Your task to perform on an android device: change timer sound Image 0: 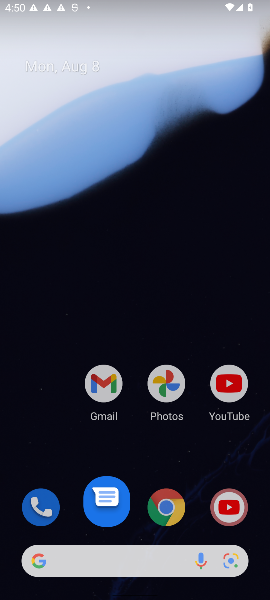
Step 0: press home button
Your task to perform on an android device: change timer sound Image 1: 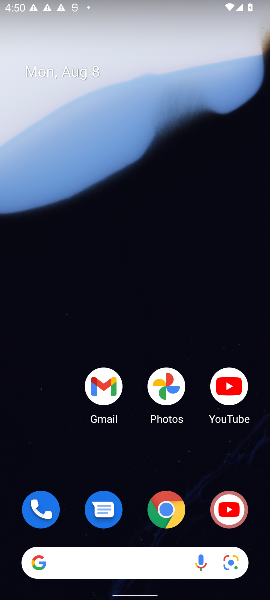
Step 1: drag from (131, 490) to (158, 68)
Your task to perform on an android device: change timer sound Image 2: 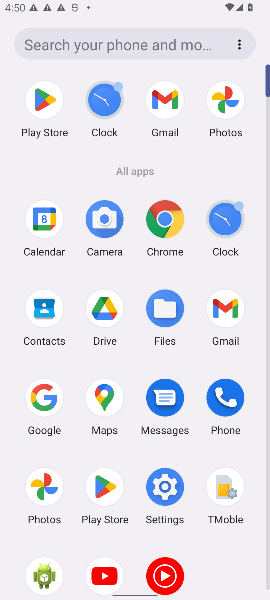
Step 2: click (111, 99)
Your task to perform on an android device: change timer sound Image 3: 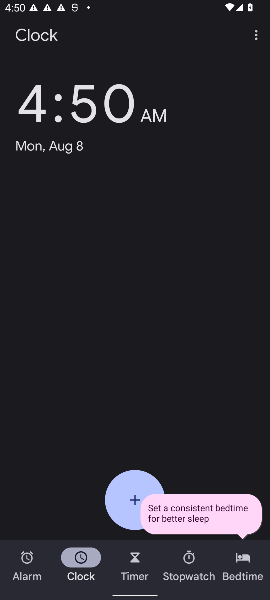
Step 3: click (257, 32)
Your task to perform on an android device: change timer sound Image 4: 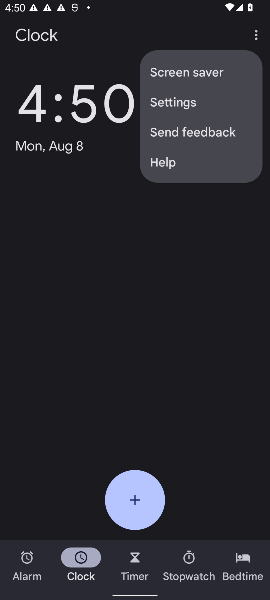
Step 4: click (180, 103)
Your task to perform on an android device: change timer sound Image 5: 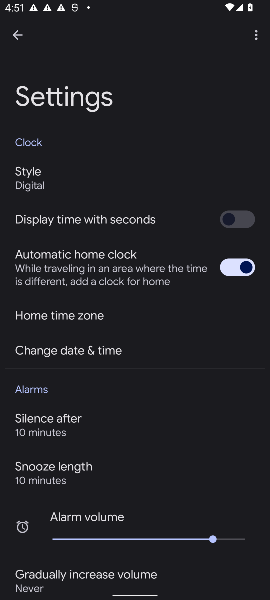
Step 5: drag from (111, 473) to (111, 283)
Your task to perform on an android device: change timer sound Image 6: 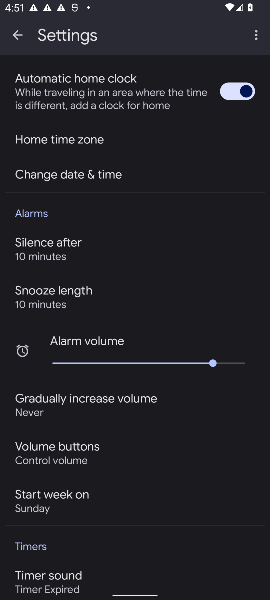
Step 6: click (49, 574)
Your task to perform on an android device: change timer sound Image 7: 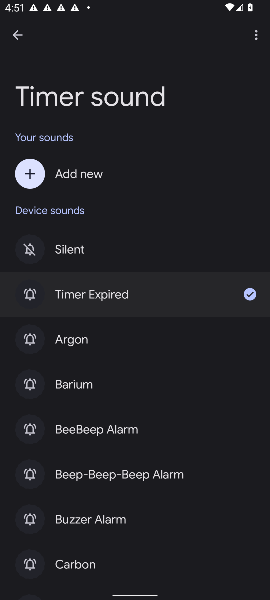
Step 7: click (86, 334)
Your task to perform on an android device: change timer sound Image 8: 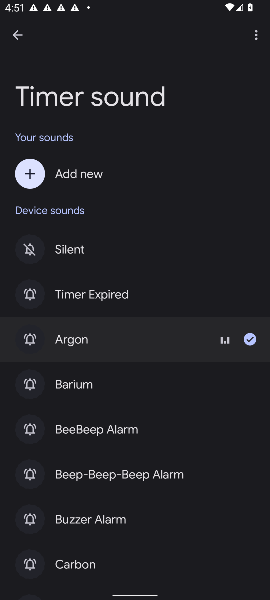
Step 8: task complete